Your task to perform on an android device: turn on sleep mode Image 0: 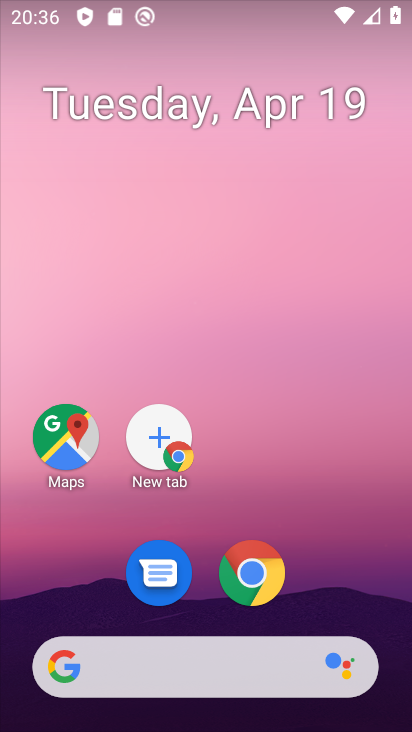
Step 0: drag from (361, 583) to (315, 228)
Your task to perform on an android device: turn on sleep mode Image 1: 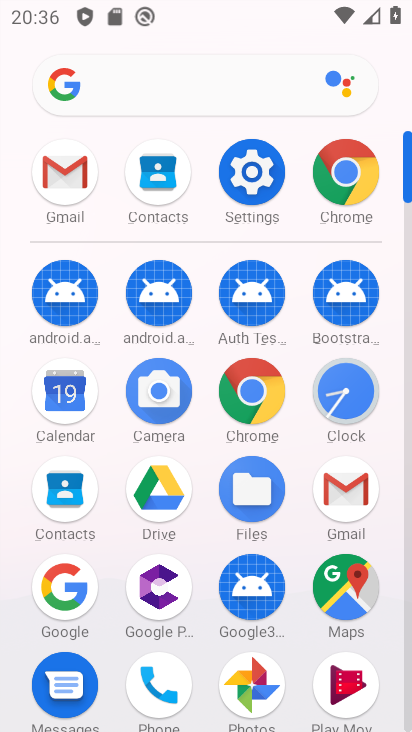
Step 1: click (258, 170)
Your task to perform on an android device: turn on sleep mode Image 2: 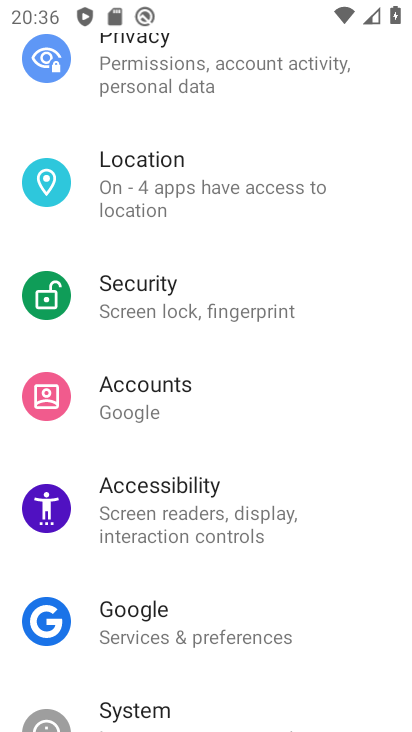
Step 2: drag from (360, 191) to (351, 644)
Your task to perform on an android device: turn on sleep mode Image 3: 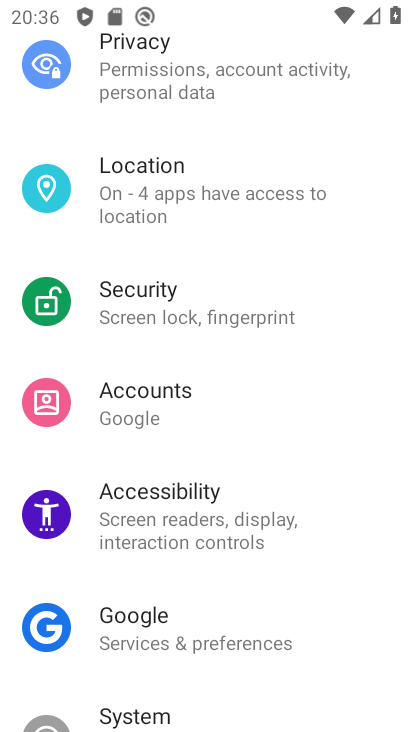
Step 3: click (365, 546)
Your task to perform on an android device: turn on sleep mode Image 4: 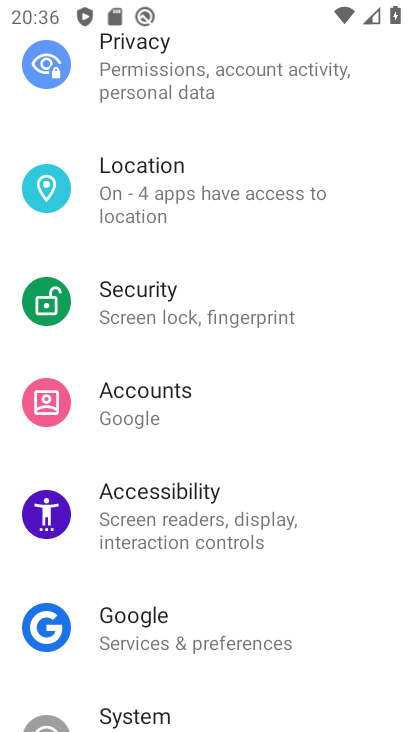
Step 4: drag from (365, 118) to (371, 578)
Your task to perform on an android device: turn on sleep mode Image 5: 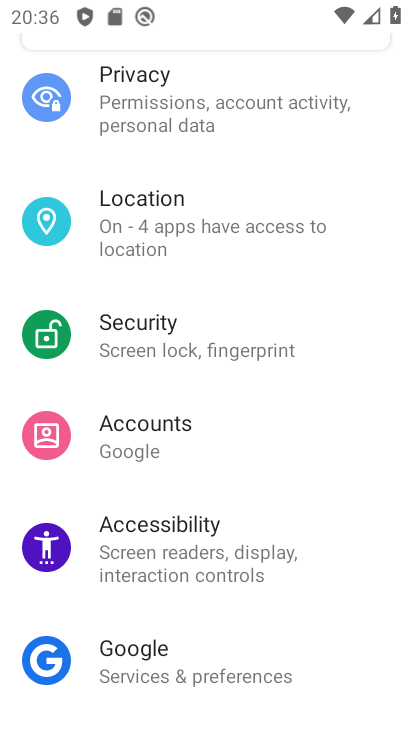
Step 5: drag from (368, 479) to (372, 550)
Your task to perform on an android device: turn on sleep mode Image 6: 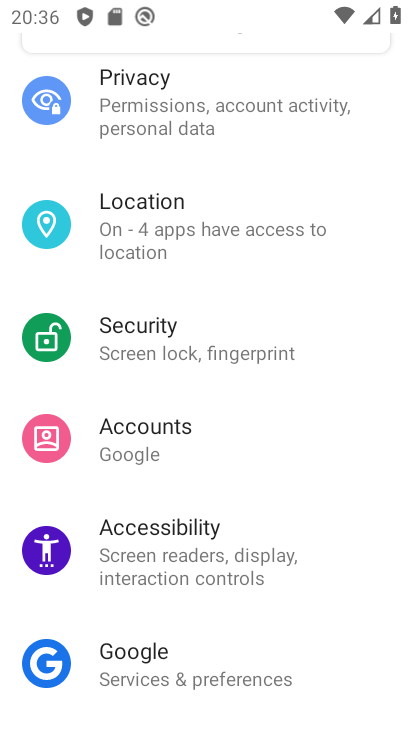
Step 6: drag from (382, 277) to (378, 619)
Your task to perform on an android device: turn on sleep mode Image 7: 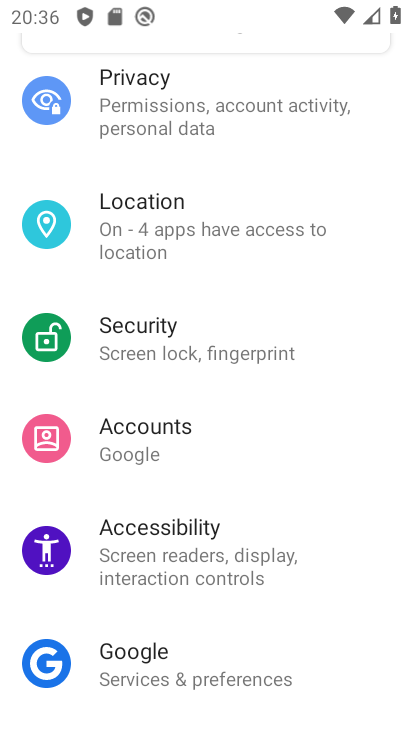
Step 7: drag from (409, 260) to (409, 307)
Your task to perform on an android device: turn on sleep mode Image 8: 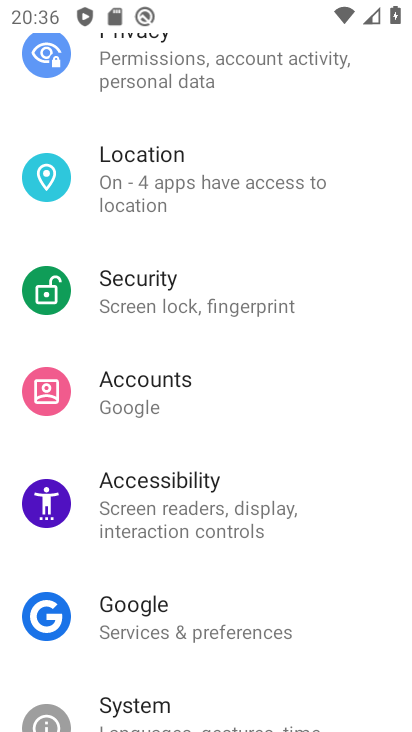
Step 8: drag from (380, 75) to (348, 461)
Your task to perform on an android device: turn on sleep mode Image 9: 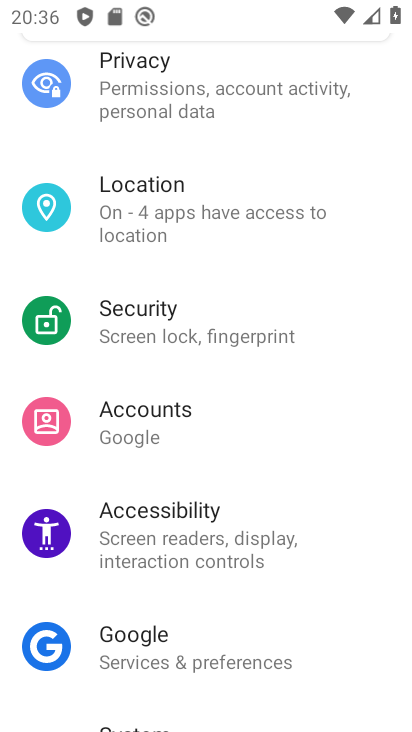
Step 9: drag from (384, 58) to (385, 511)
Your task to perform on an android device: turn on sleep mode Image 10: 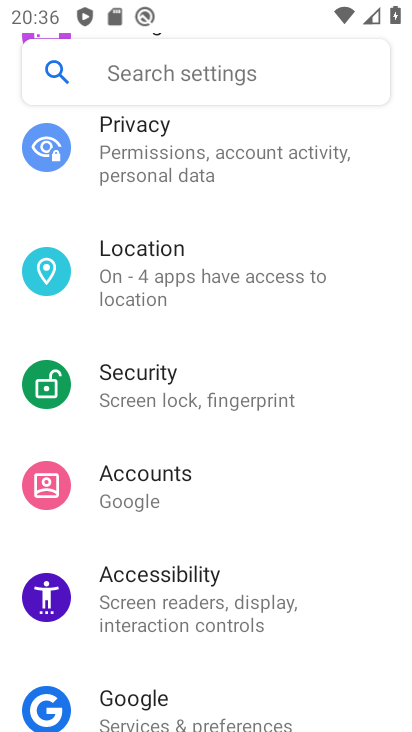
Step 10: drag from (382, 122) to (405, 628)
Your task to perform on an android device: turn on sleep mode Image 11: 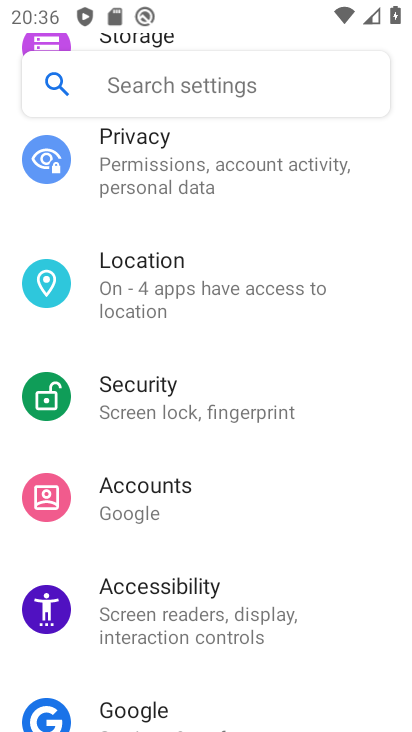
Step 11: drag from (377, 149) to (368, 567)
Your task to perform on an android device: turn on sleep mode Image 12: 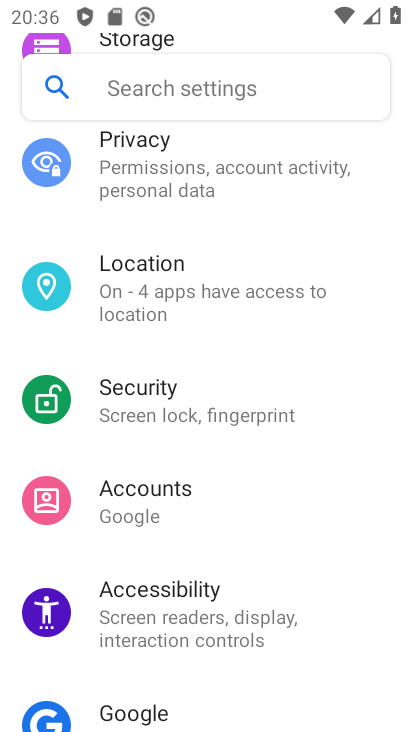
Step 12: drag from (380, 538) to (368, 718)
Your task to perform on an android device: turn on sleep mode Image 13: 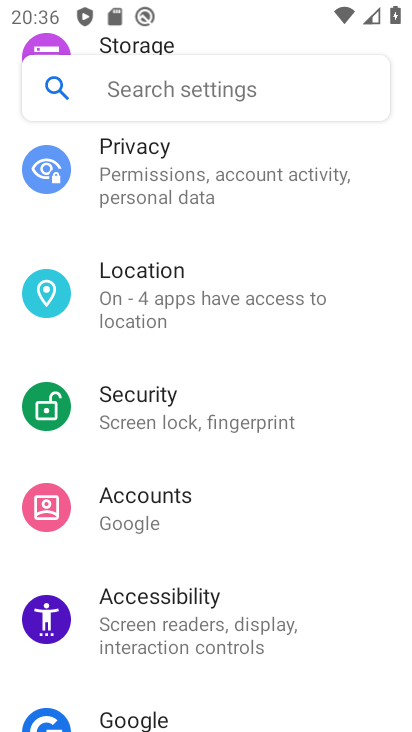
Step 13: drag from (389, 212) to (385, 545)
Your task to perform on an android device: turn on sleep mode Image 14: 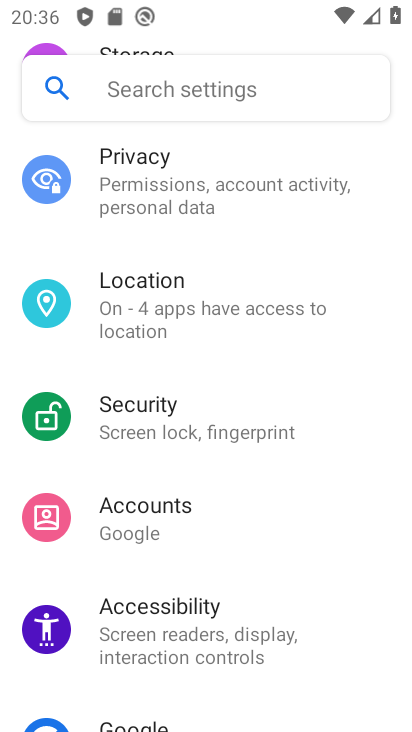
Step 14: drag from (380, 164) to (387, 573)
Your task to perform on an android device: turn on sleep mode Image 15: 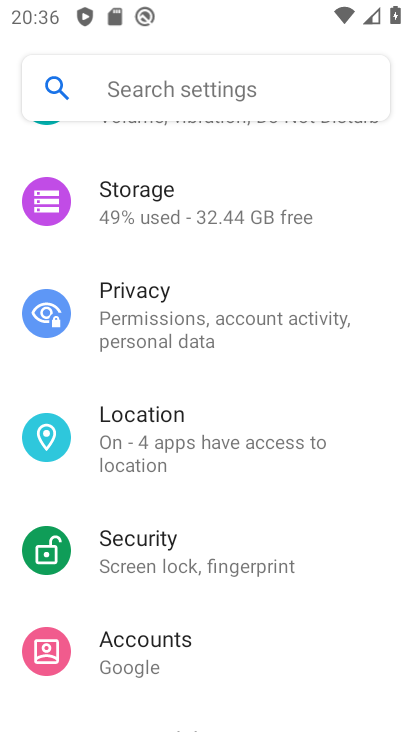
Step 15: drag from (381, 164) to (362, 643)
Your task to perform on an android device: turn on sleep mode Image 16: 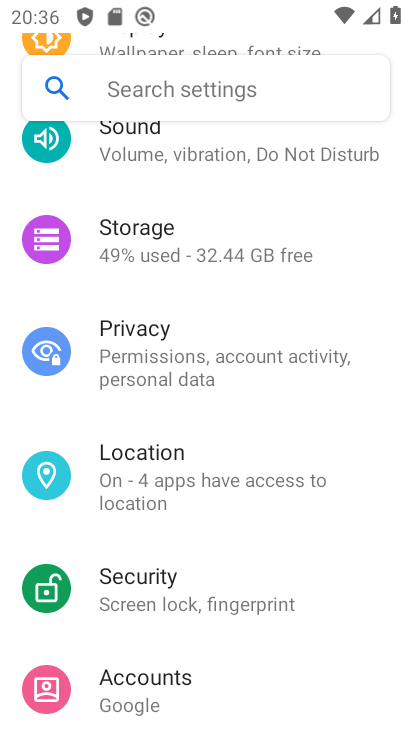
Step 16: drag from (385, 361) to (392, 661)
Your task to perform on an android device: turn on sleep mode Image 17: 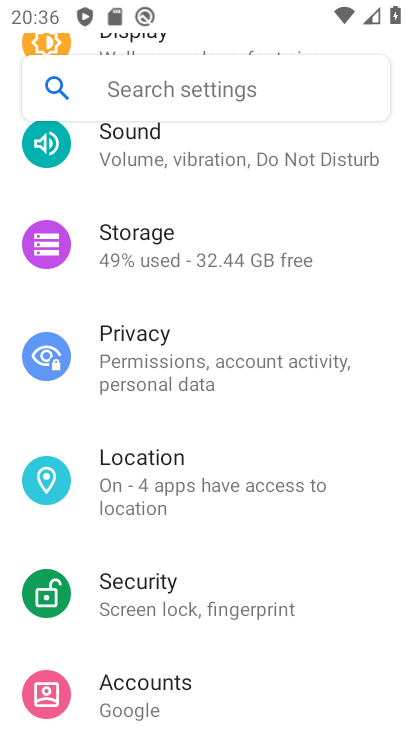
Step 17: drag from (404, 316) to (400, 665)
Your task to perform on an android device: turn on sleep mode Image 18: 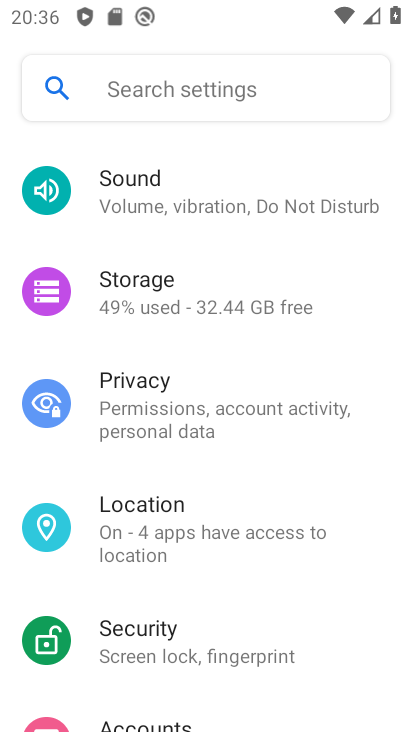
Step 18: drag from (391, 153) to (410, 603)
Your task to perform on an android device: turn on sleep mode Image 19: 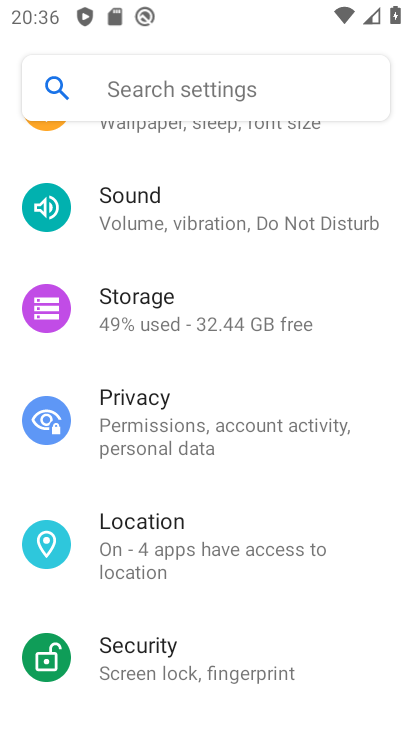
Step 19: click (231, 126)
Your task to perform on an android device: turn on sleep mode Image 20: 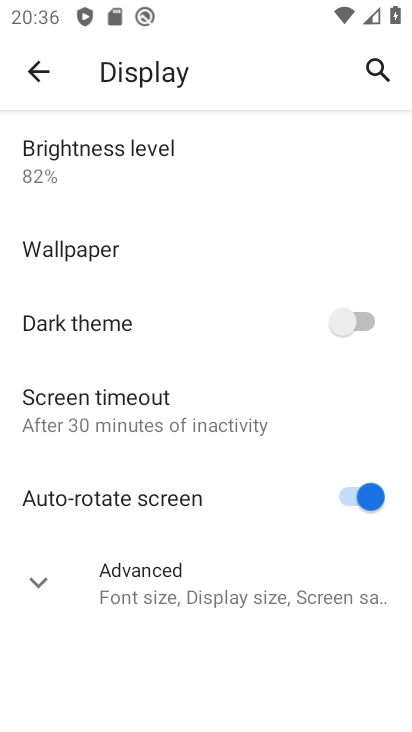
Step 20: click (82, 411)
Your task to perform on an android device: turn on sleep mode Image 21: 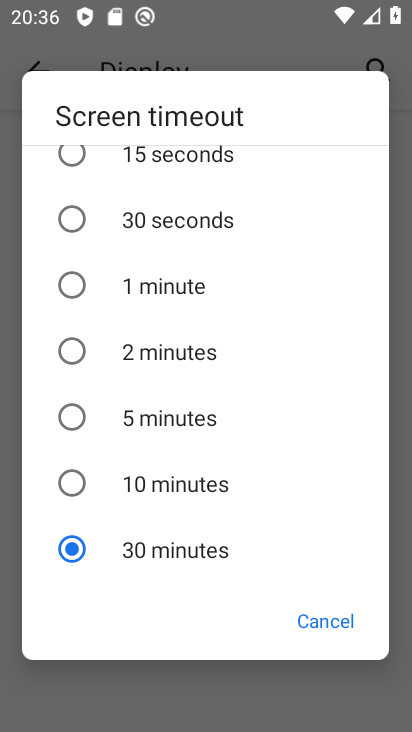
Step 21: task complete